Your task to perform on an android device: turn off data saver in the chrome app Image 0: 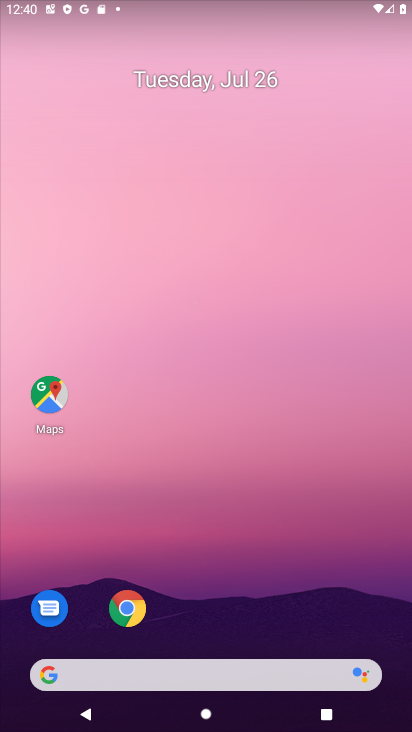
Step 0: click (133, 609)
Your task to perform on an android device: turn off data saver in the chrome app Image 1: 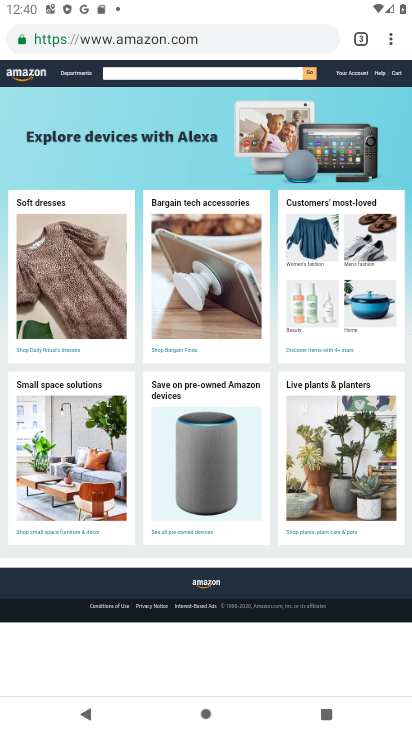
Step 1: click (390, 43)
Your task to perform on an android device: turn off data saver in the chrome app Image 2: 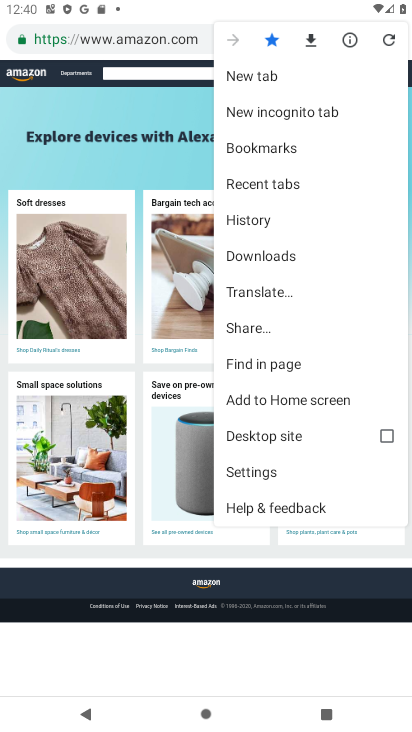
Step 2: click (261, 476)
Your task to perform on an android device: turn off data saver in the chrome app Image 3: 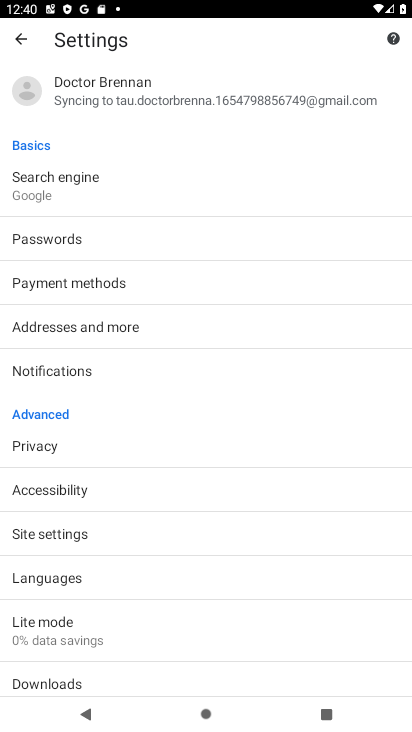
Step 3: click (80, 638)
Your task to perform on an android device: turn off data saver in the chrome app Image 4: 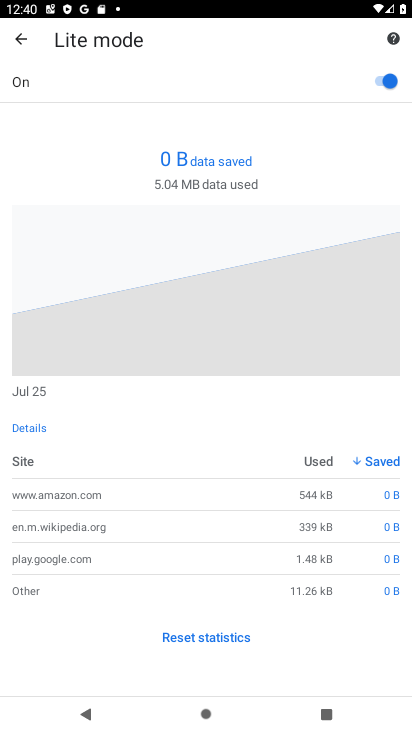
Step 4: click (378, 89)
Your task to perform on an android device: turn off data saver in the chrome app Image 5: 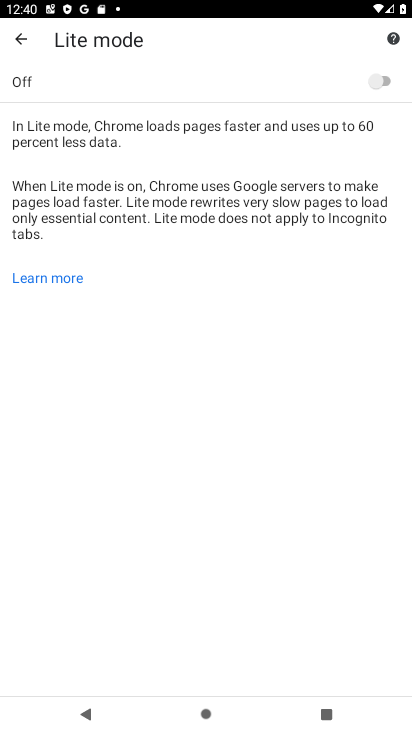
Step 5: task complete